Your task to perform on an android device: set default search engine in the chrome app Image 0: 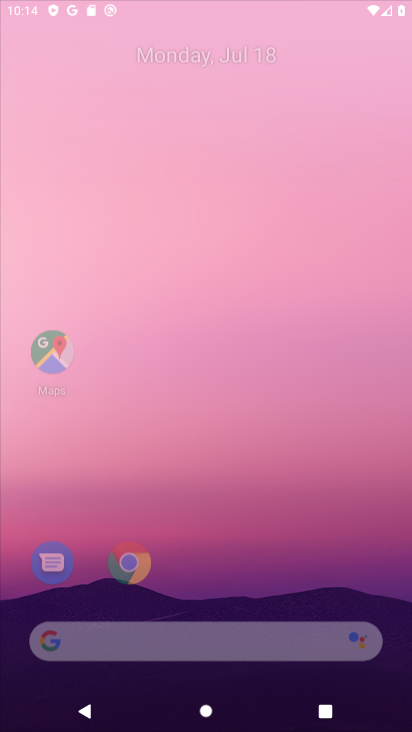
Step 0: press home button
Your task to perform on an android device: set default search engine in the chrome app Image 1: 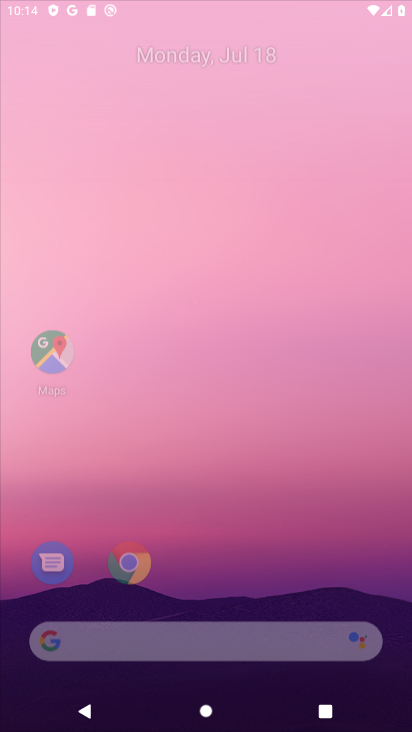
Step 1: click (287, 203)
Your task to perform on an android device: set default search engine in the chrome app Image 2: 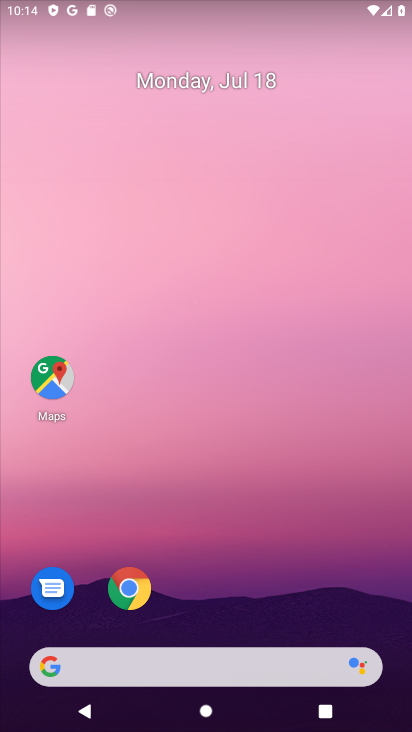
Step 2: drag from (291, 552) to (280, 517)
Your task to perform on an android device: set default search engine in the chrome app Image 3: 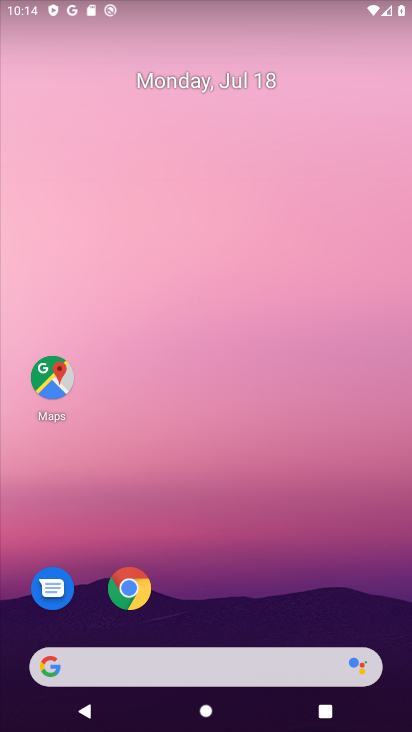
Step 3: drag from (258, 593) to (306, 242)
Your task to perform on an android device: set default search engine in the chrome app Image 4: 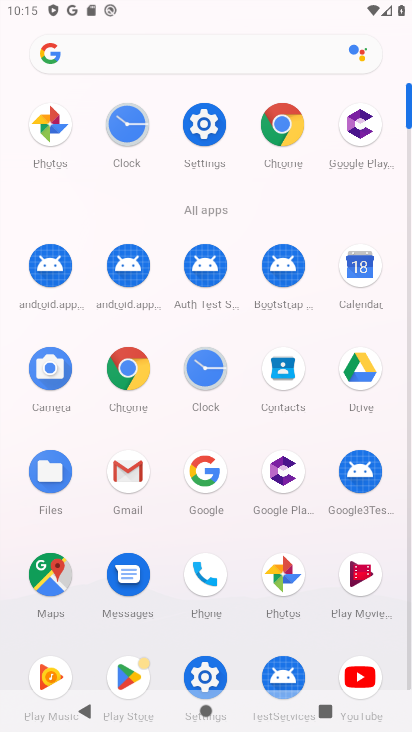
Step 4: click (127, 376)
Your task to perform on an android device: set default search engine in the chrome app Image 5: 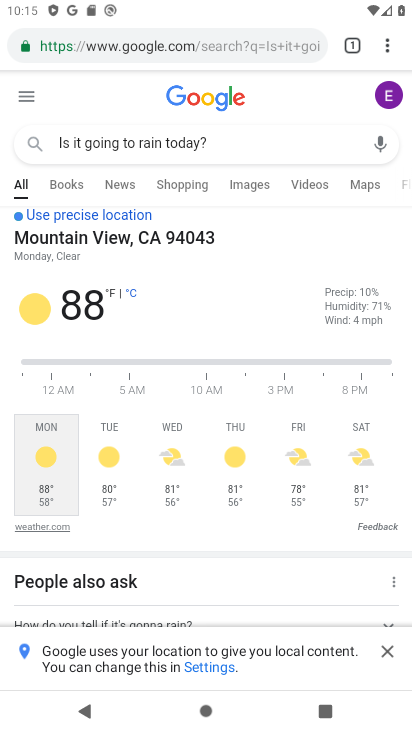
Step 5: drag from (383, 39) to (243, 508)
Your task to perform on an android device: set default search engine in the chrome app Image 6: 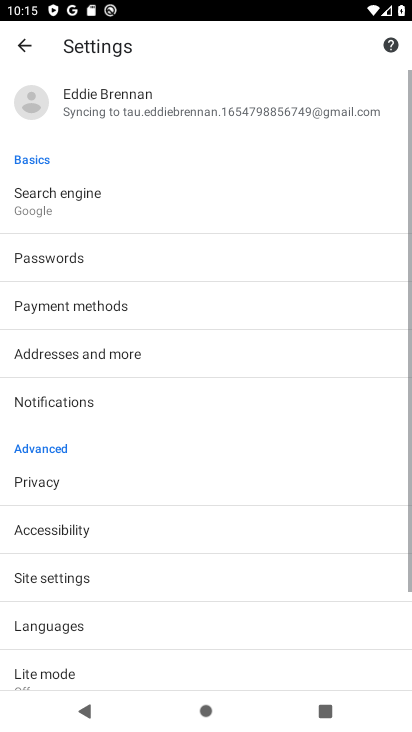
Step 6: click (53, 208)
Your task to perform on an android device: set default search engine in the chrome app Image 7: 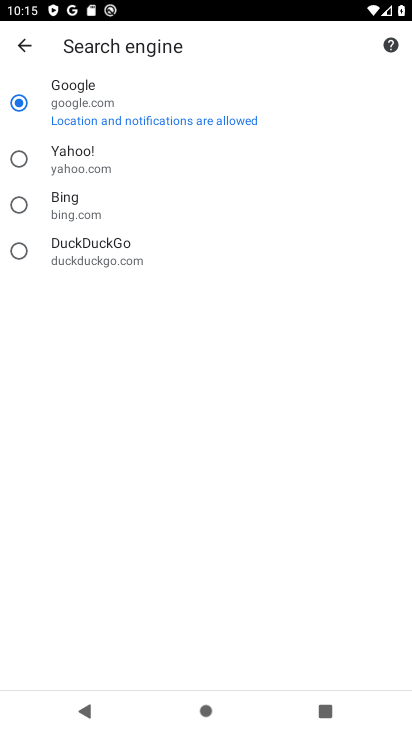
Step 7: click (70, 107)
Your task to perform on an android device: set default search engine in the chrome app Image 8: 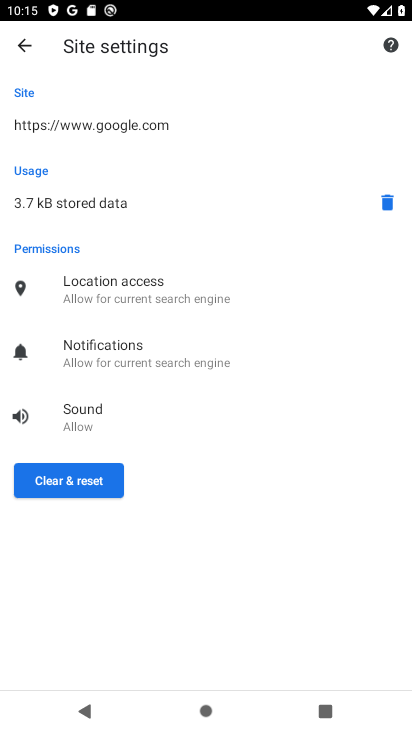
Step 8: task complete